Your task to perform on an android device: uninstall "File Manager" Image 0: 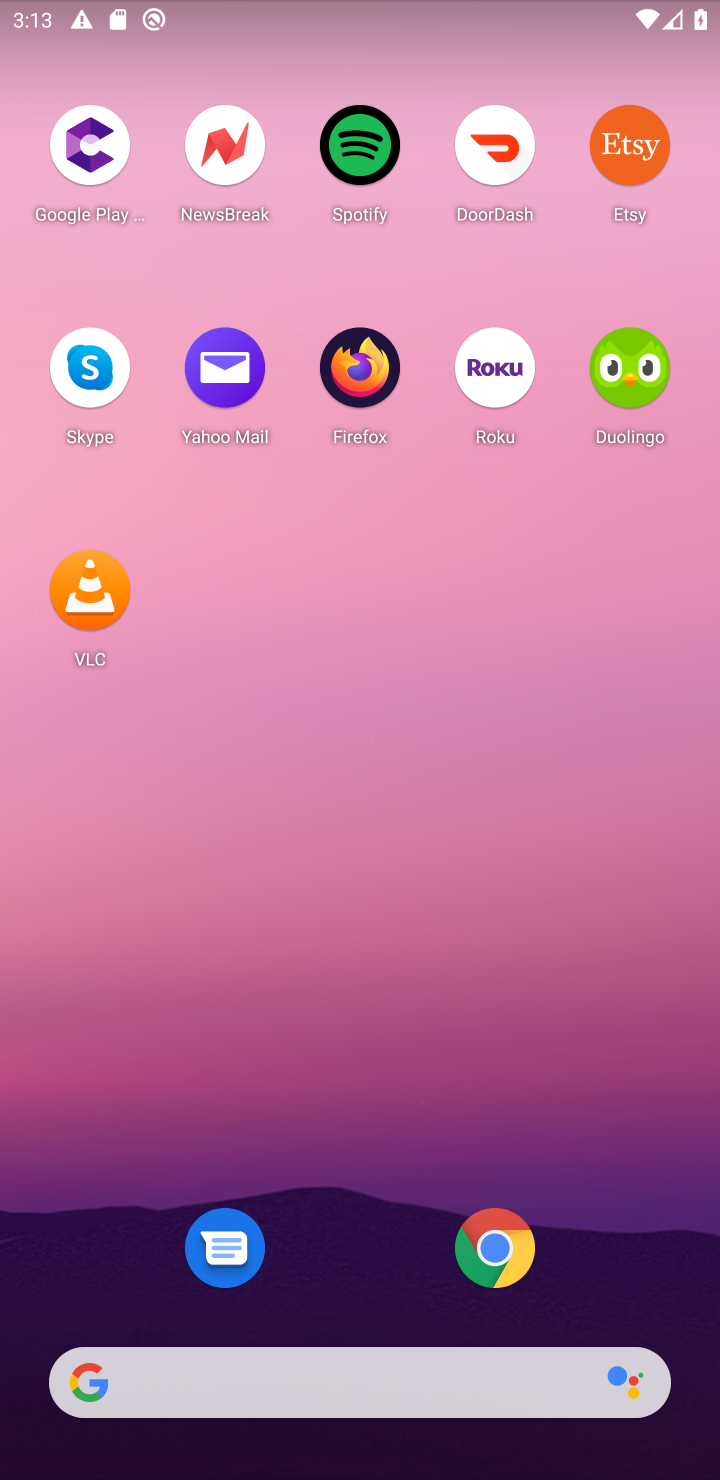
Step 0: drag from (372, 1298) to (454, 85)
Your task to perform on an android device: uninstall "File Manager" Image 1: 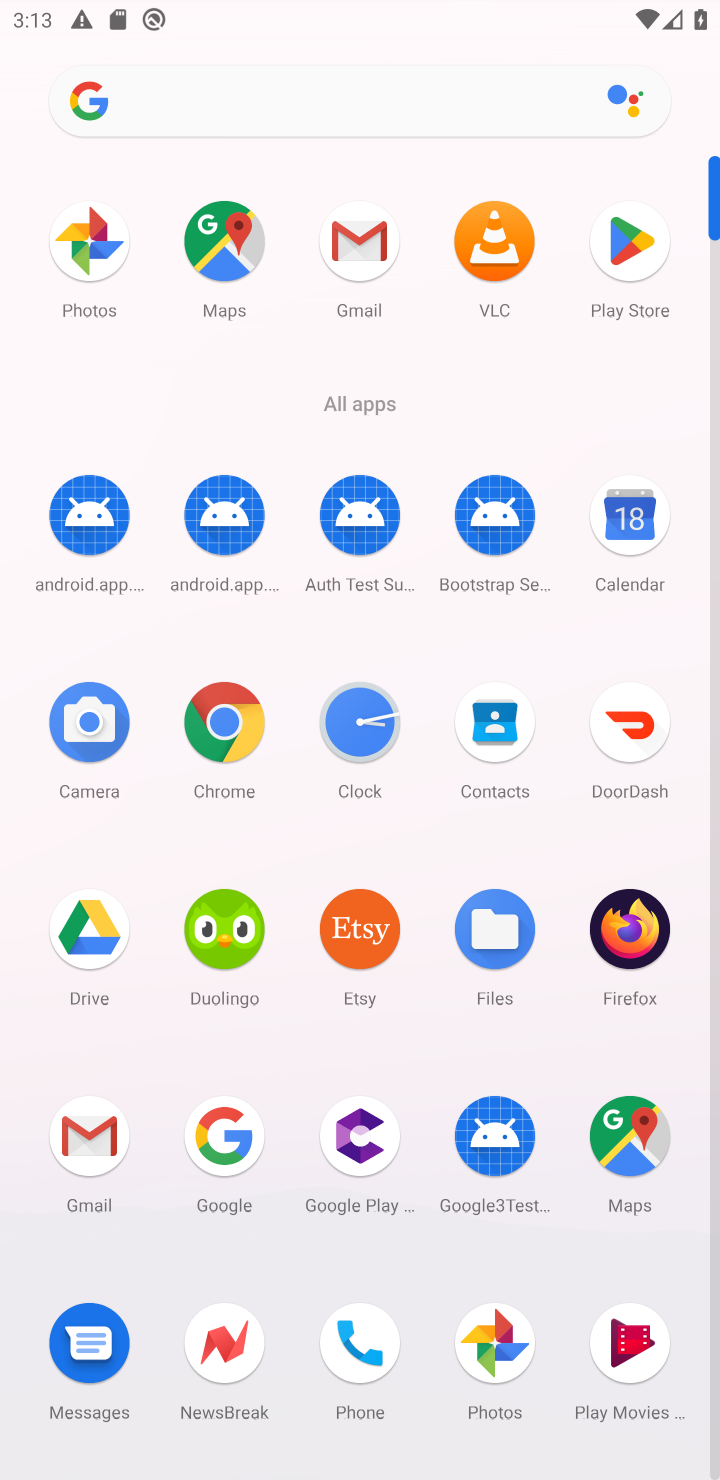
Step 1: click (620, 235)
Your task to perform on an android device: uninstall "File Manager" Image 2: 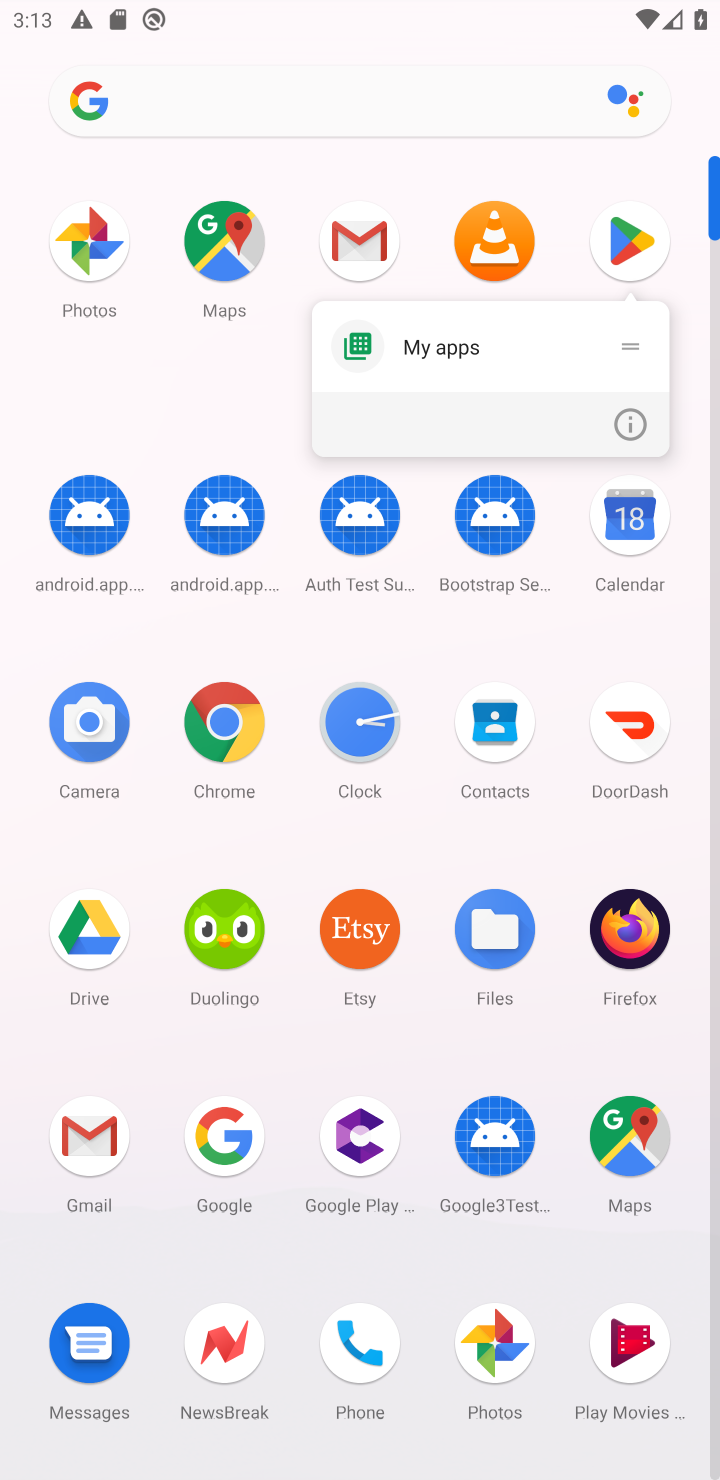
Step 2: click (630, 228)
Your task to perform on an android device: uninstall "File Manager" Image 3: 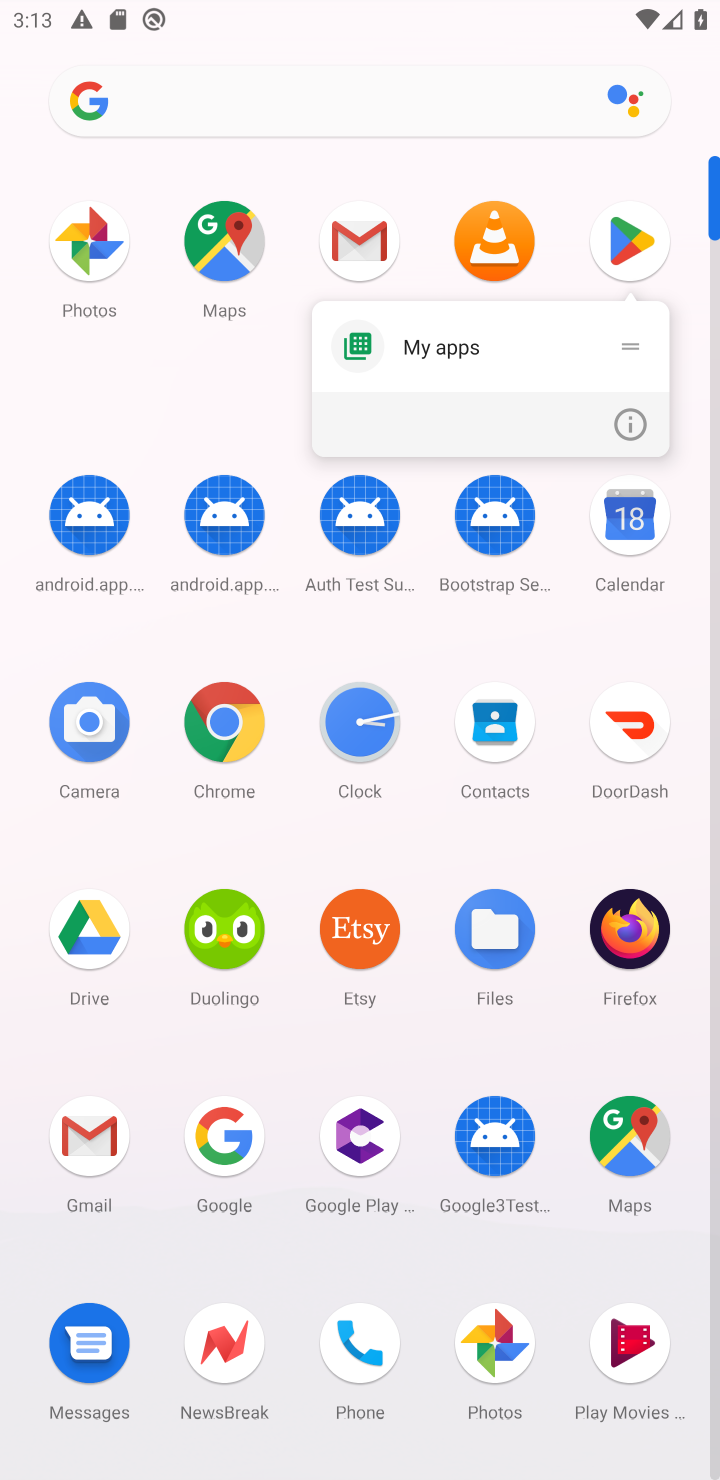
Step 3: click (620, 239)
Your task to perform on an android device: uninstall "File Manager" Image 4: 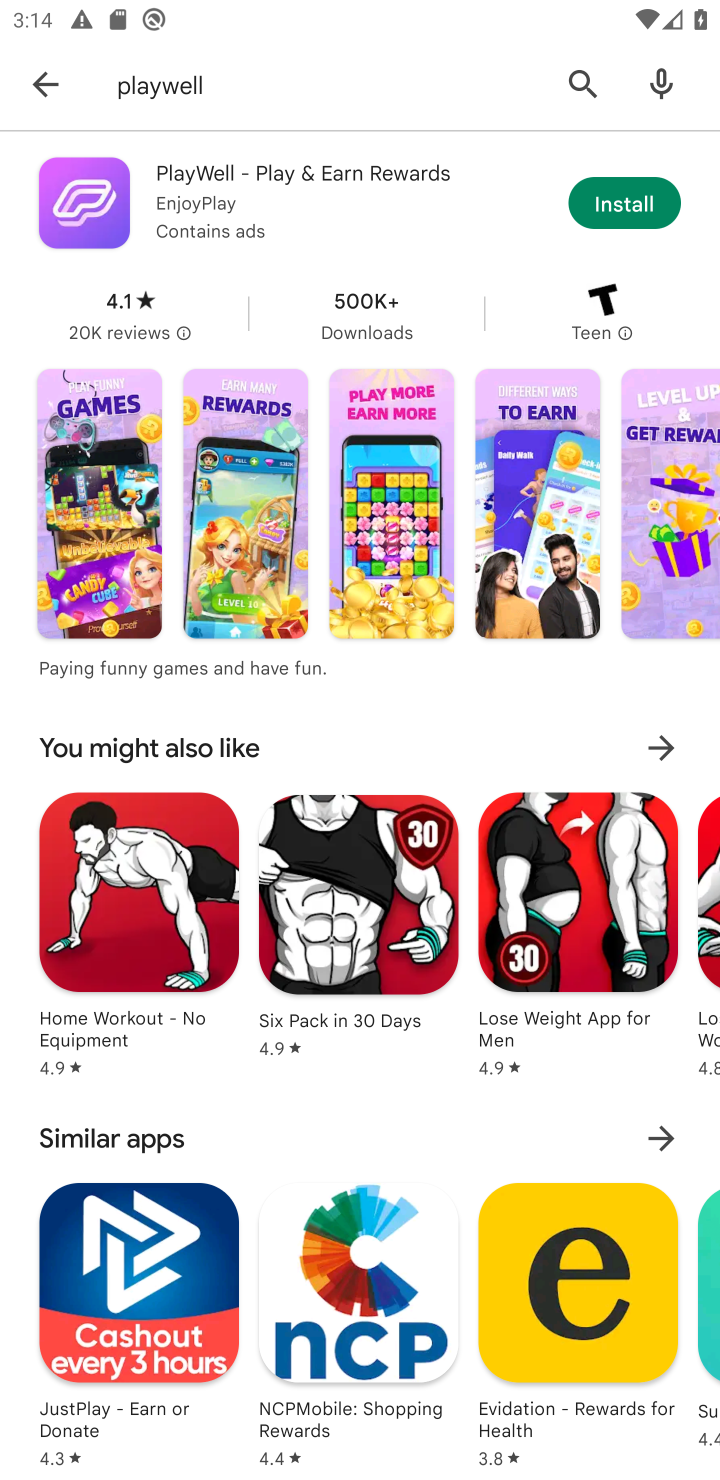
Step 4: click (576, 70)
Your task to perform on an android device: uninstall "File Manager" Image 5: 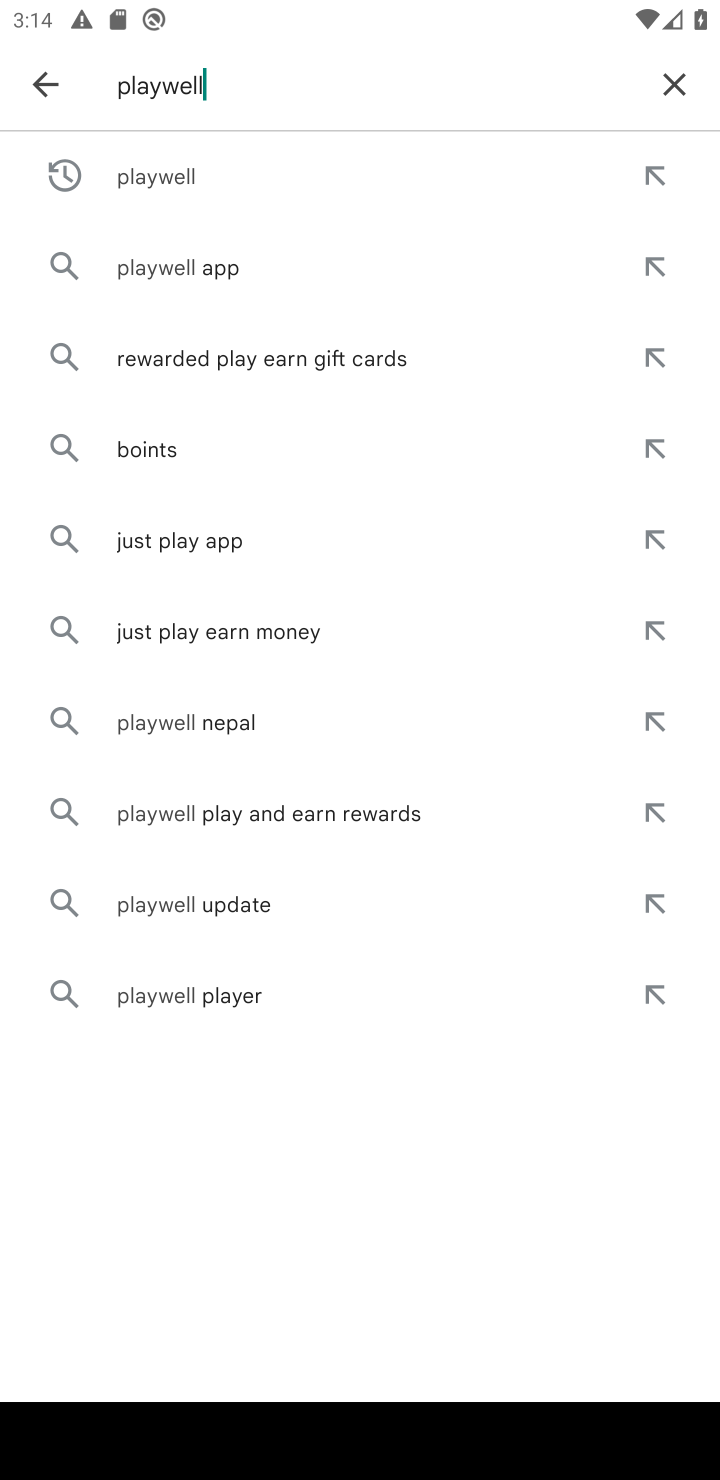
Step 5: click (674, 72)
Your task to perform on an android device: uninstall "File Manager" Image 6: 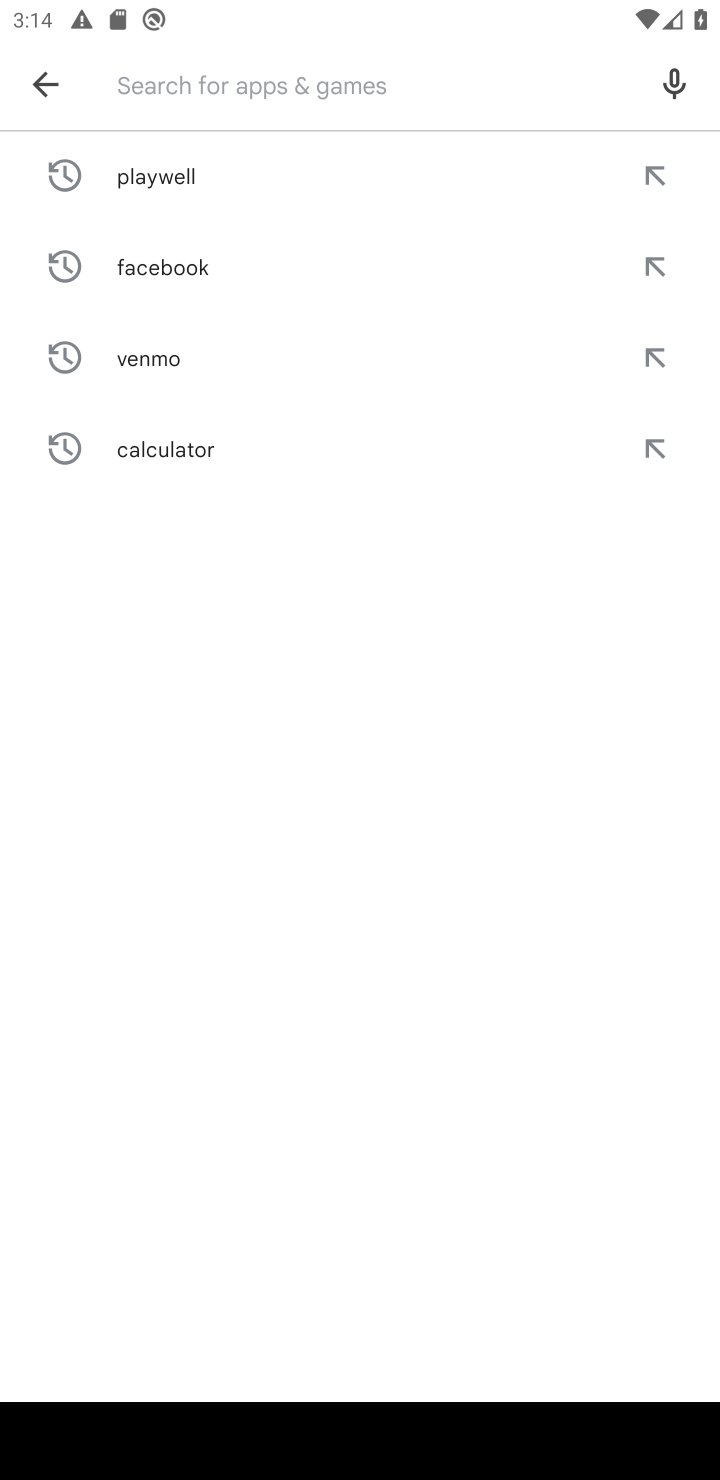
Step 6: type "File Manager"
Your task to perform on an android device: uninstall "File Manager" Image 7: 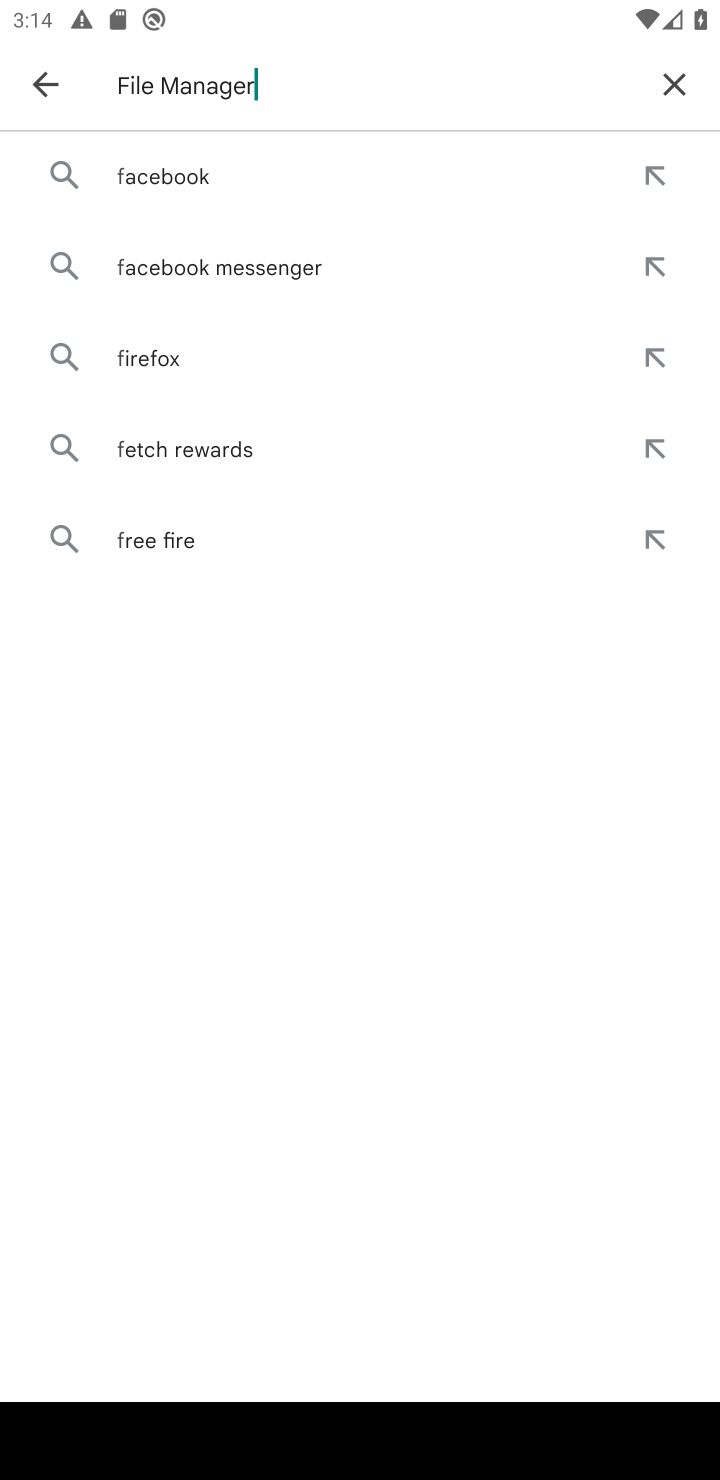
Step 7: type ""
Your task to perform on an android device: uninstall "File Manager" Image 8: 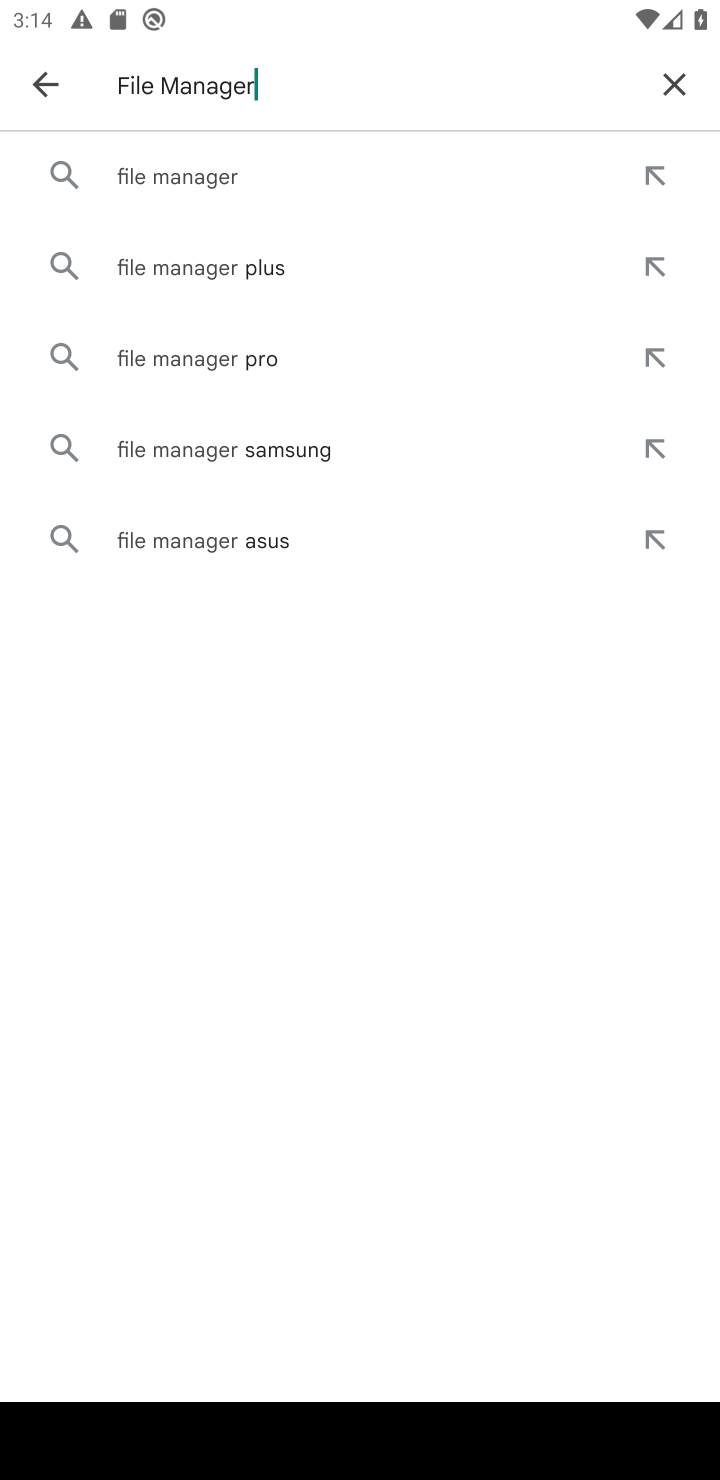
Step 8: click (209, 164)
Your task to perform on an android device: uninstall "File Manager" Image 9: 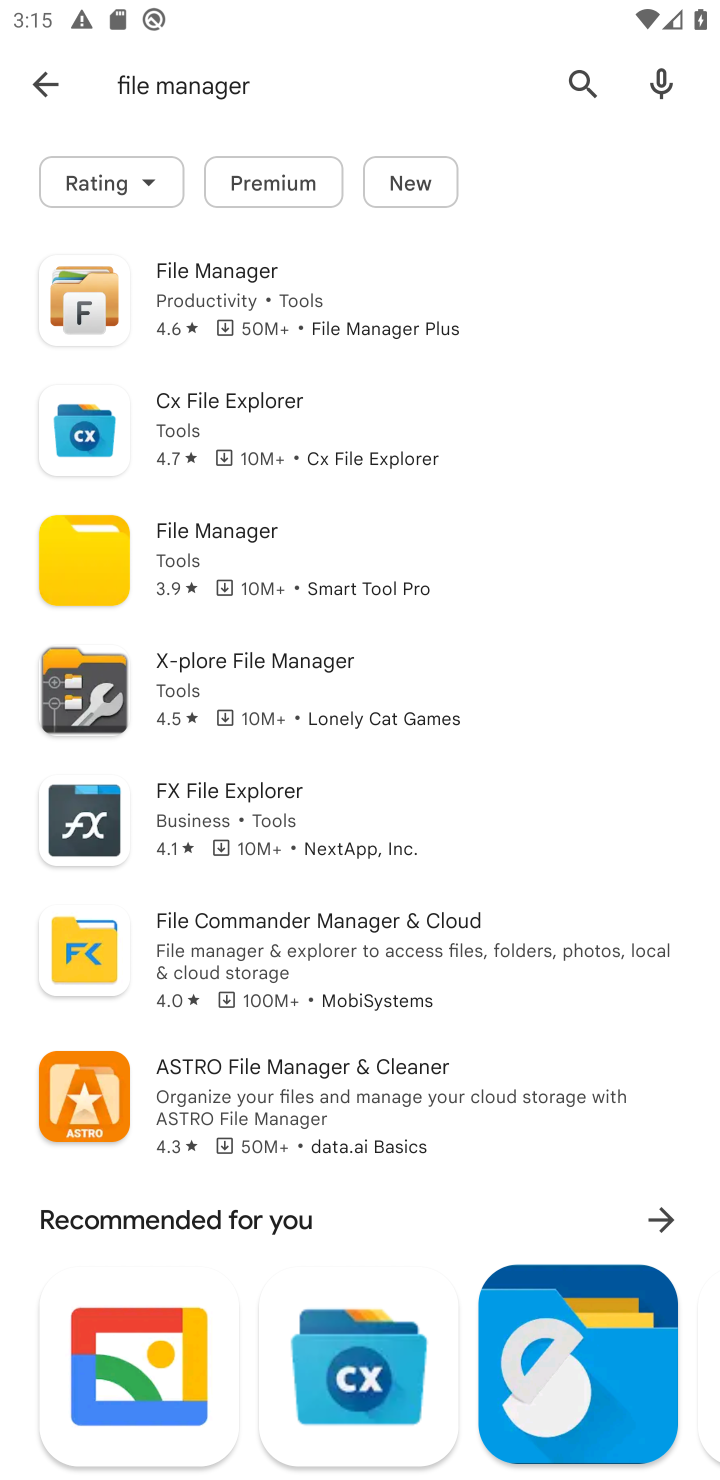
Step 9: click (244, 305)
Your task to perform on an android device: uninstall "File Manager" Image 10: 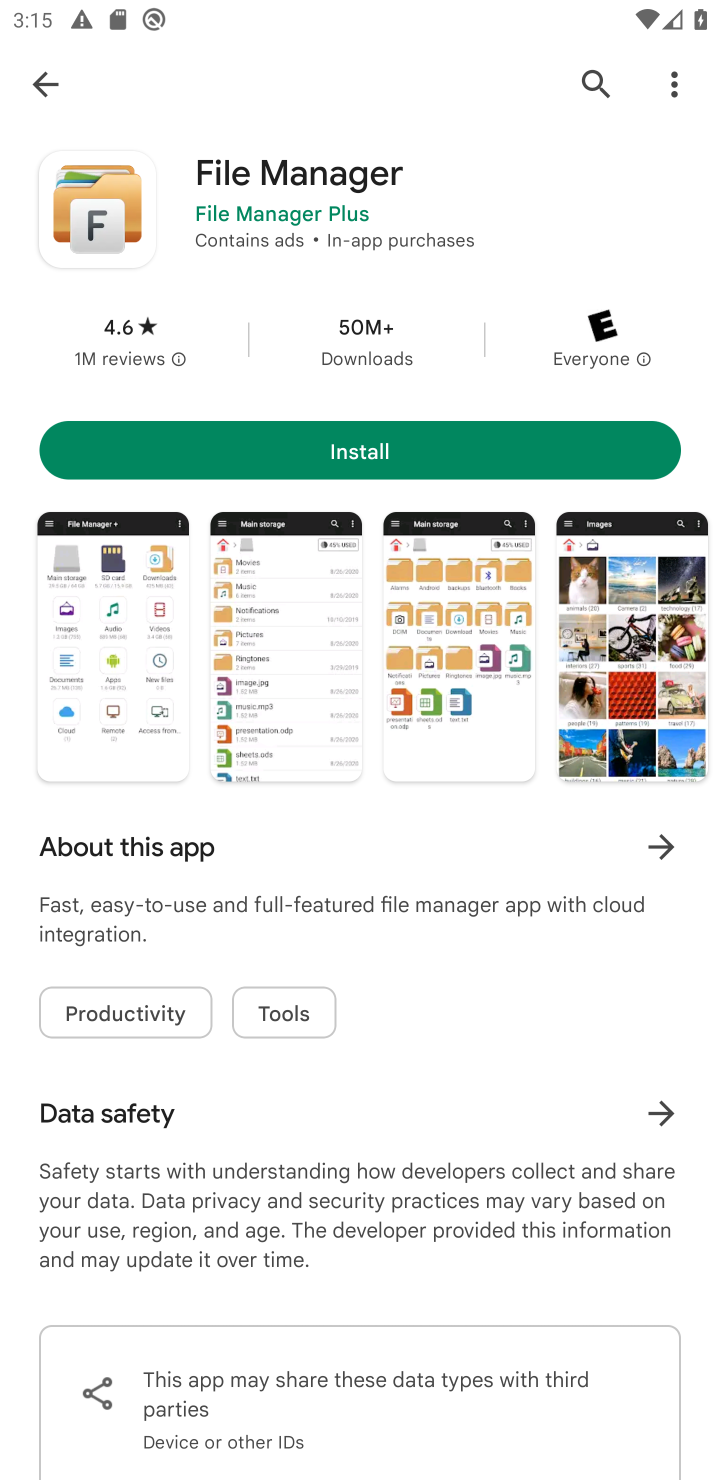
Step 10: task complete